Your task to perform on an android device: change the clock display to show seconds Image 0: 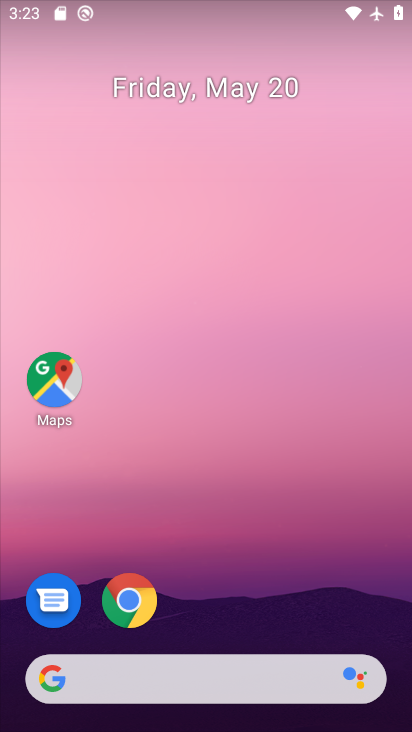
Step 0: drag from (307, 593) to (169, 21)
Your task to perform on an android device: change the clock display to show seconds Image 1: 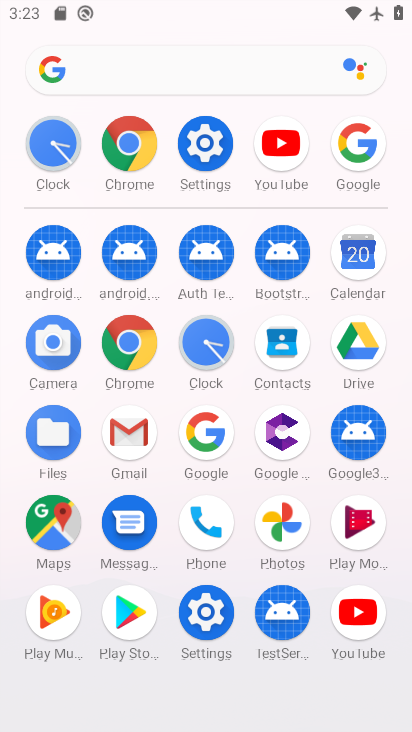
Step 1: click (203, 361)
Your task to perform on an android device: change the clock display to show seconds Image 2: 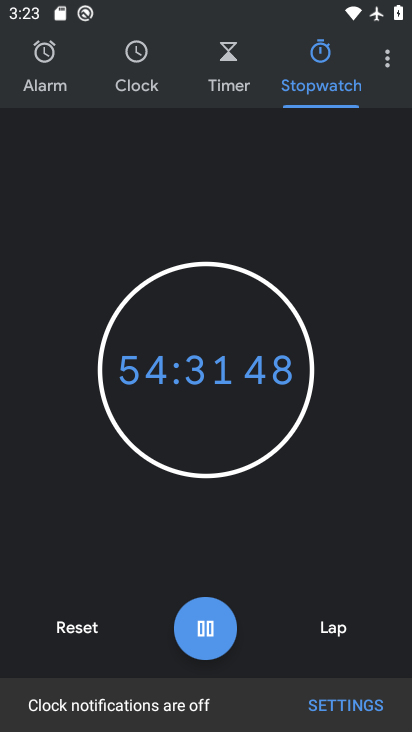
Step 2: click (379, 47)
Your task to perform on an android device: change the clock display to show seconds Image 3: 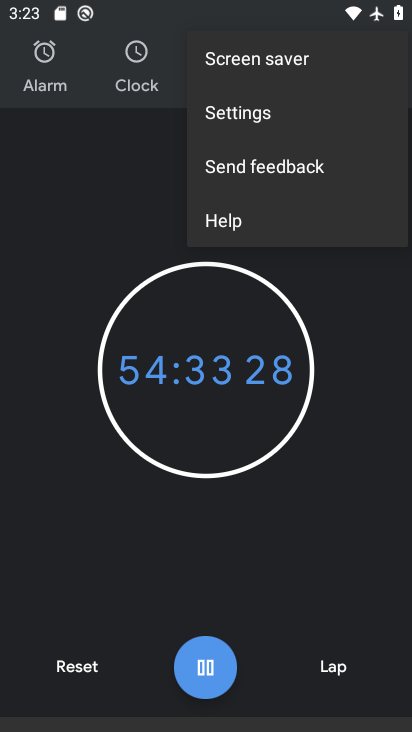
Step 3: click (235, 106)
Your task to perform on an android device: change the clock display to show seconds Image 4: 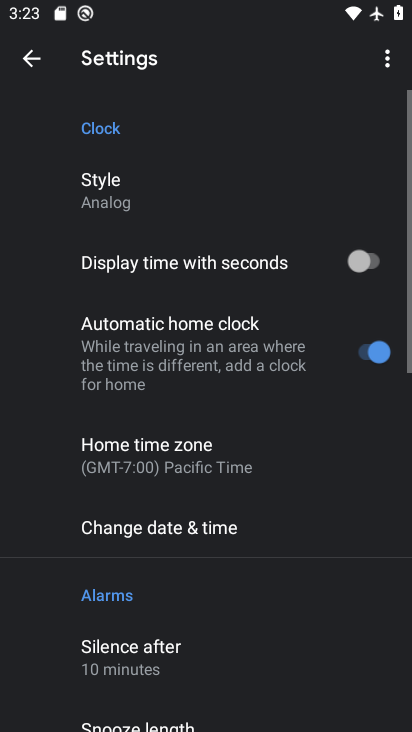
Step 4: click (240, 262)
Your task to perform on an android device: change the clock display to show seconds Image 5: 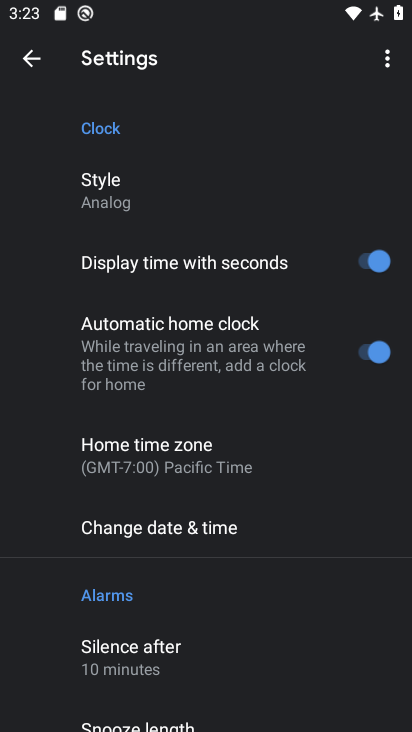
Step 5: task complete